Your task to perform on an android device: empty trash in google photos Image 0: 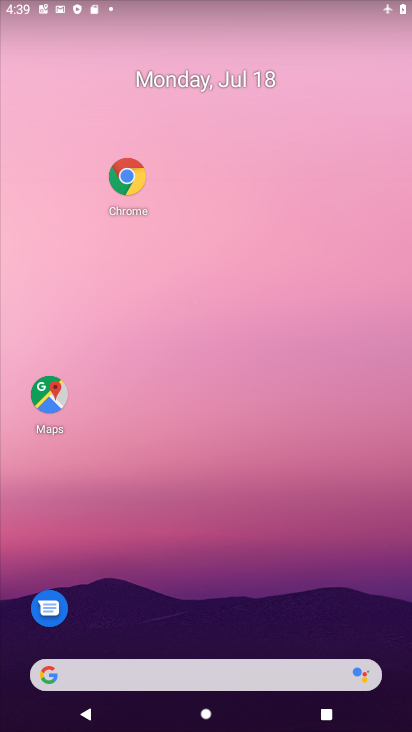
Step 0: drag from (167, 685) to (279, 56)
Your task to perform on an android device: empty trash in google photos Image 1: 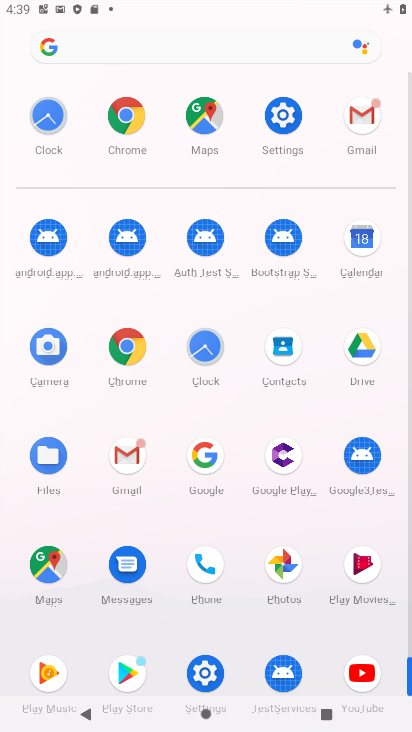
Step 1: click (280, 565)
Your task to perform on an android device: empty trash in google photos Image 2: 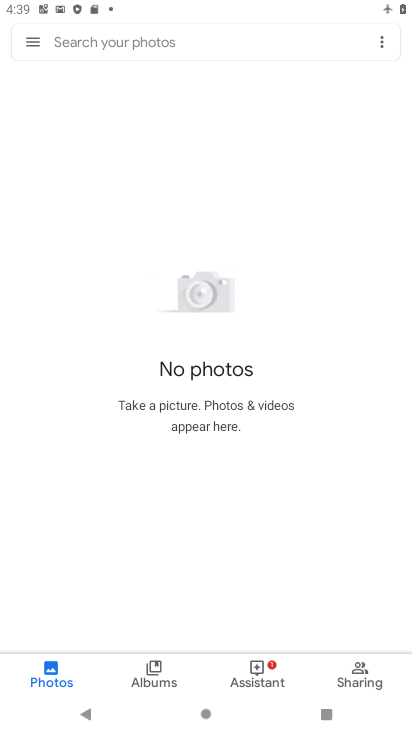
Step 2: click (34, 49)
Your task to perform on an android device: empty trash in google photos Image 3: 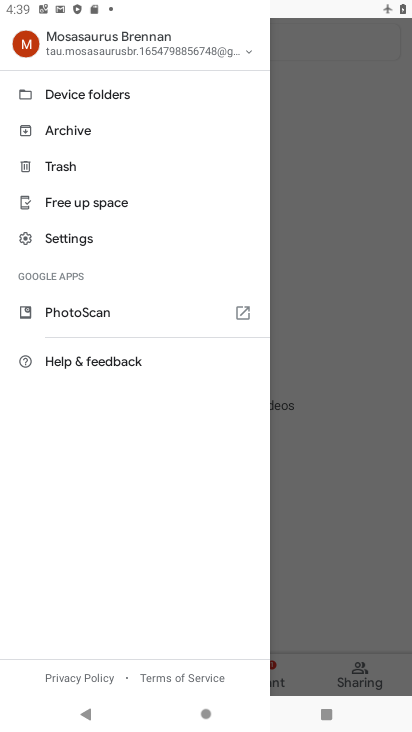
Step 3: click (91, 175)
Your task to perform on an android device: empty trash in google photos Image 4: 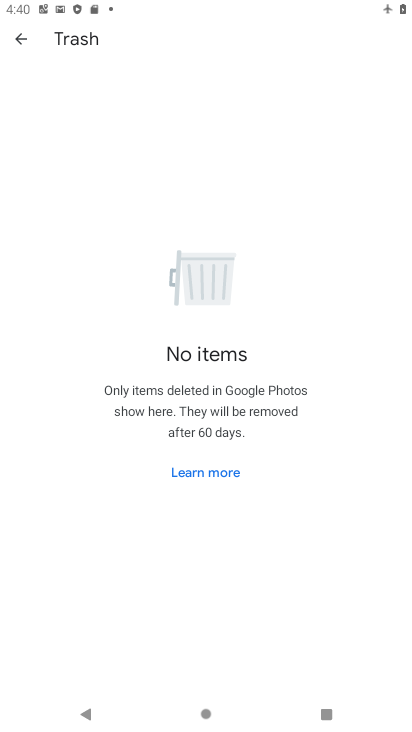
Step 4: task complete